Your task to perform on an android device: change notification settings in the gmail app Image 0: 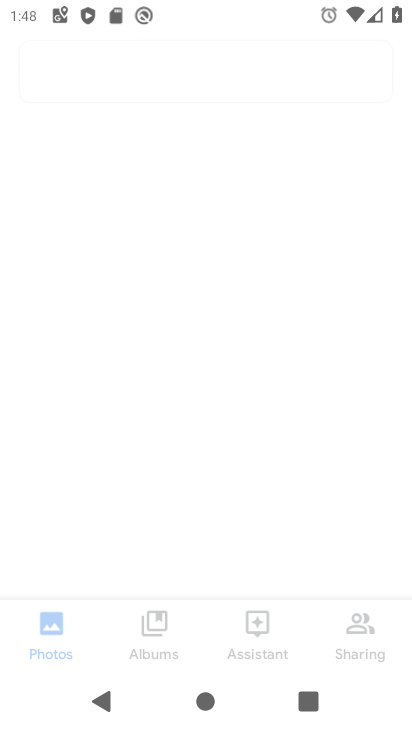
Step 0: press home button
Your task to perform on an android device: change notification settings in the gmail app Image 1: 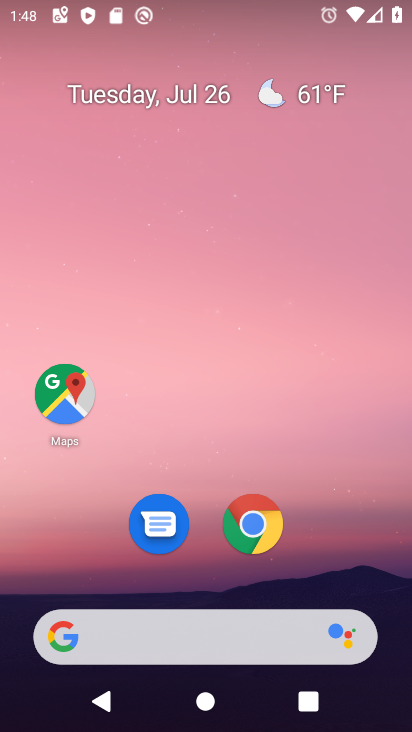
Step 1: drag from (189, 565) to (273, 129)
Your task to perform on an android device: change notification settings in the gmail app Image 2: 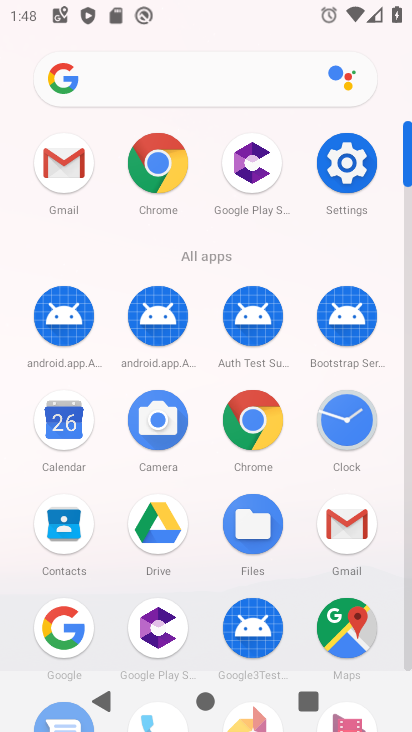
Step 2: click (60, 174)
Your task to perform on an android device: change notification settings in the gmail app Image 3: 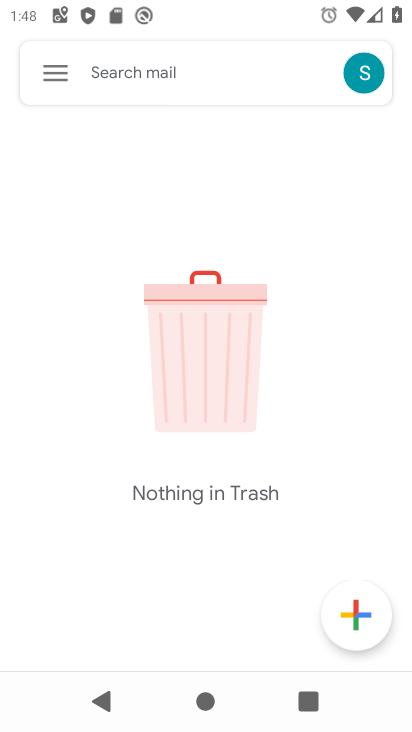
Step 3: click (55, 74)
Your task to perform on an android device: change notification settings in the gmail app Image 4: 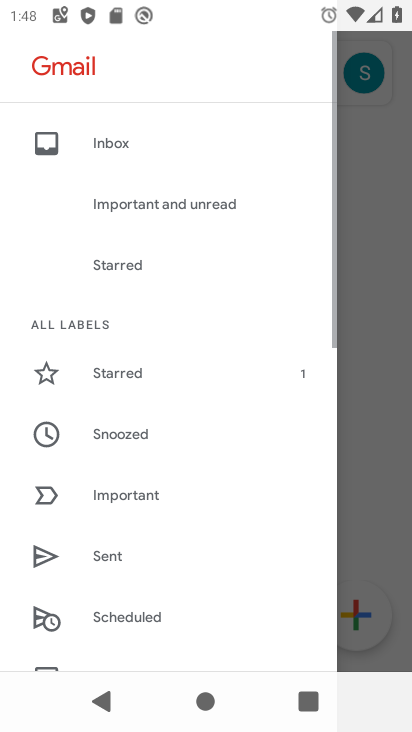
Step 4: drag from (177, 533) to (263, 95)
Your task to perform on an android device: change notification settings in the gmail app Image 5: 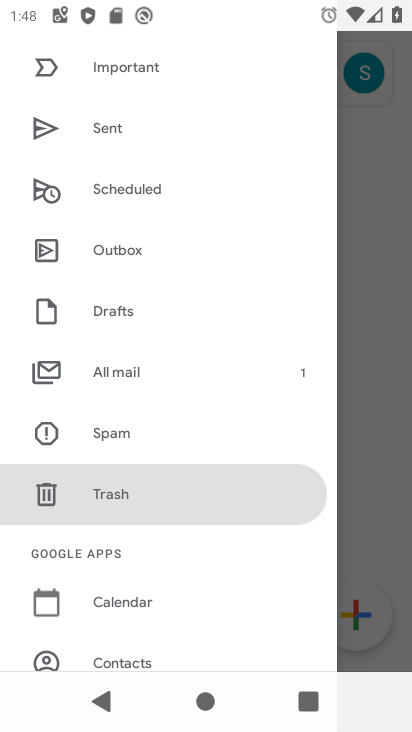
Step 5: drag from (221, 599) to (265, 76)
Your task to perform on an android device: change notification settings in the gmail app Image 6: 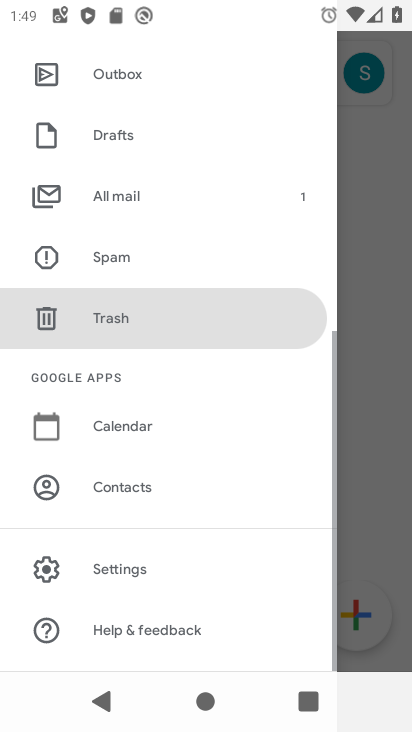
Step 6: click (128, 574)
Your task to perform on an android device: change notification settings in the gmail app Image 7: 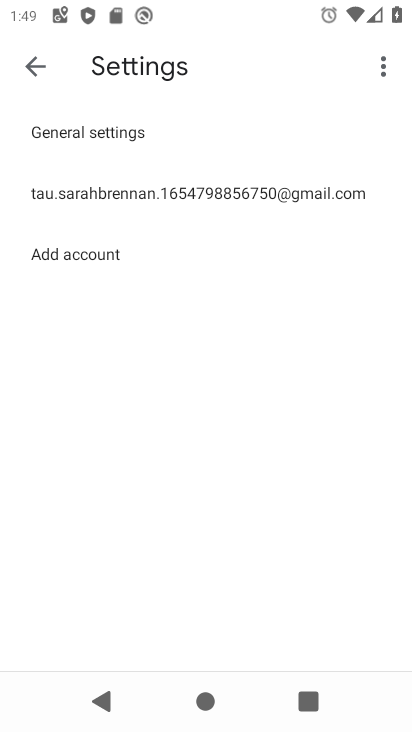
Step 7: click (248, 191)
Your task to perform on an android device: change notification settings in the gmail app Image 8: 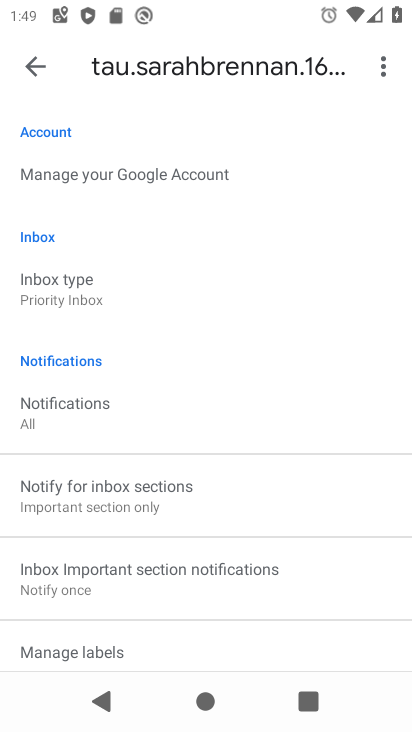
Step 8: click (55, 415)
Your task to perform on an android device: change notification settings in the gmail app Image 9: 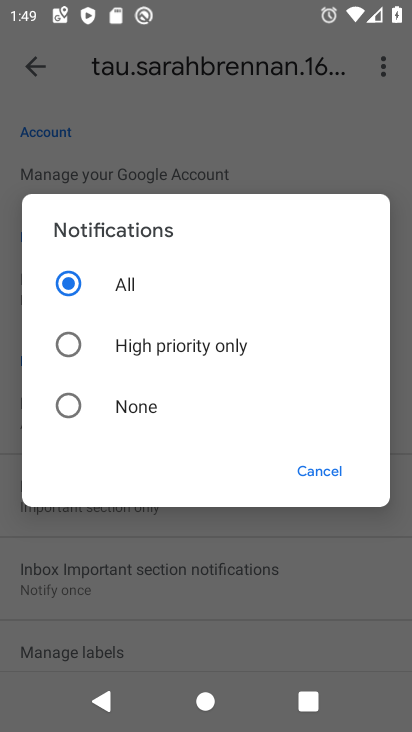
Step 9: click (72, 401)
Your task to perform on an android device: change notification settings in the gmail app Image 10: 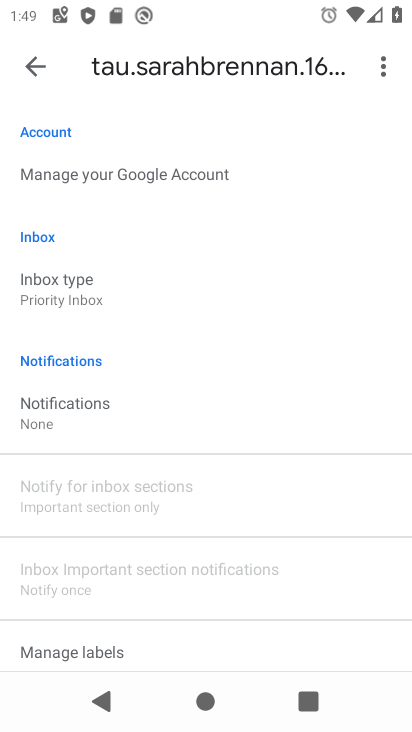
Step 10: task complete